Your task to perform on an android device: Do I have any events tomorrow? Image 0: 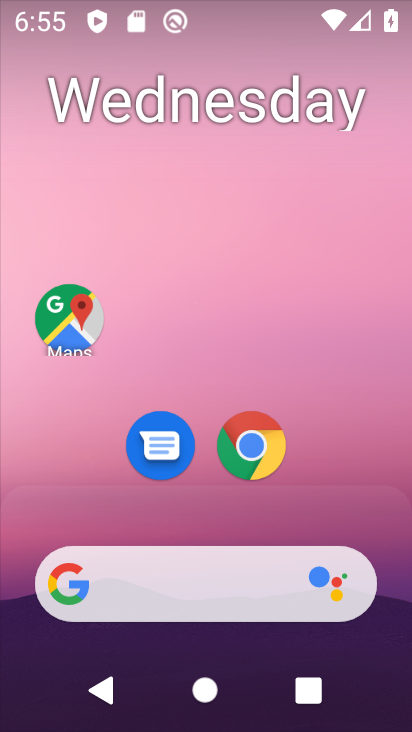
Step 0: drag from (329, 482) to (232, 23)
Your task to perform on an android device: Do I have any events tomorrow? Image 1: 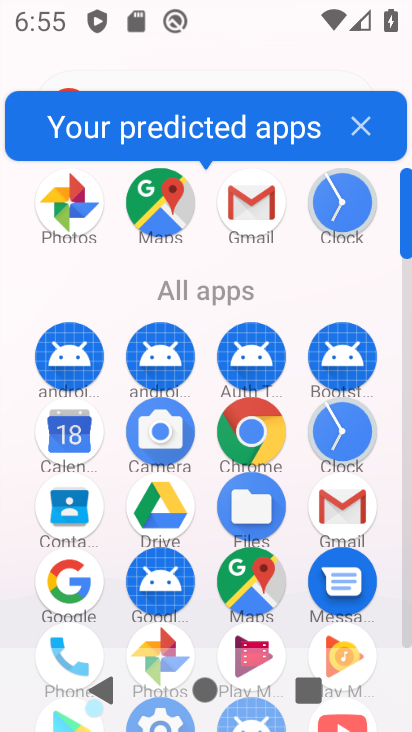
Step 1: drag from (205, 440) to (206, 230)
Your task to perform on an android device: Do I have any events tomorrow? Image 2: 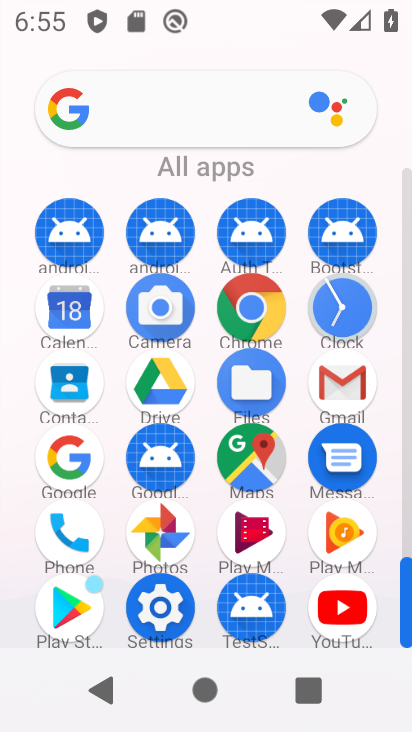
Step 2: click (71, 310)
Your task to perform on an android device: Do I have any events tomorrow? Image 3: 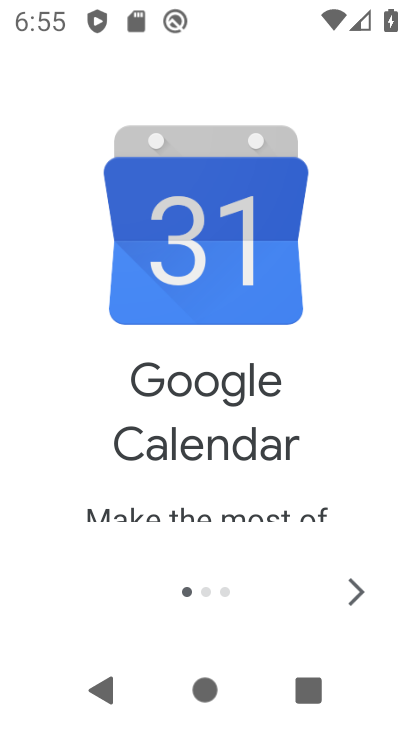
Step 3: click (355, 588)
Your task to perform on an android device: Do I have any events tomorrow? Image 4: 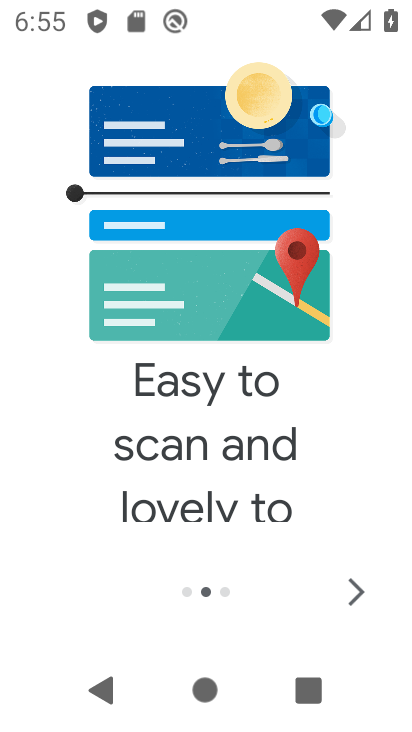
Step 4: click (355, 588)
Your task to perform on an android device: Do I have any events tomorrow? Image 5: 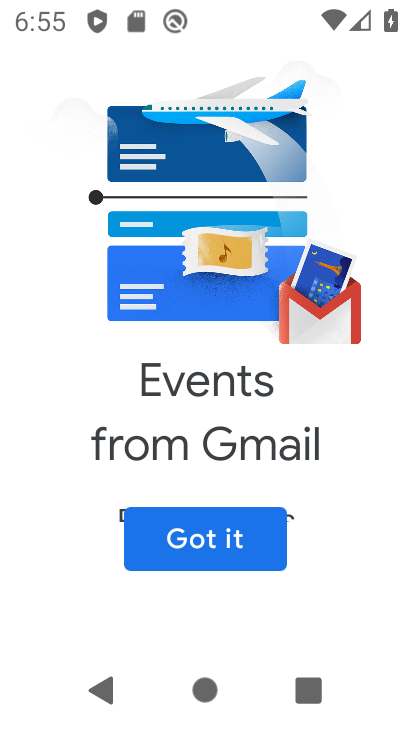
Step 5: click (214, 545)
Your task to perform on an android device: Do I have any events tomorrow? Image 6: 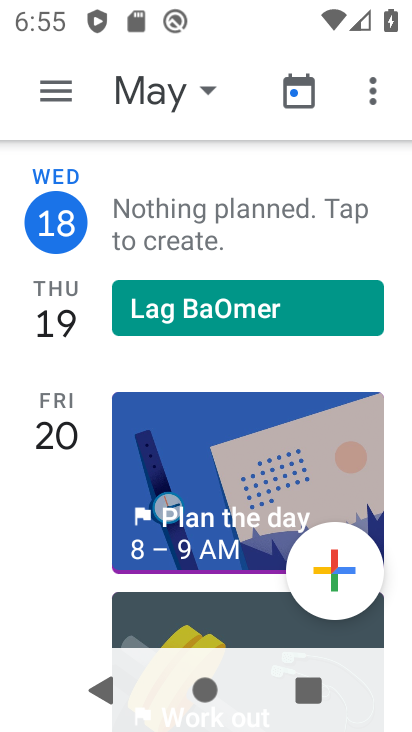
Step 6: click (208, 88)
Your task to perform on an android device: Do I have any events tomorrow? Image 7: 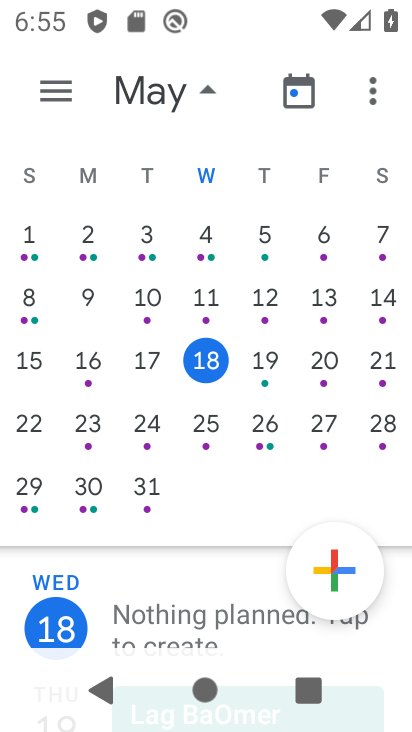
Step 7: click (278, 352)
Your task to perform on an android device: Do I have any events tomorrow? Image 8: 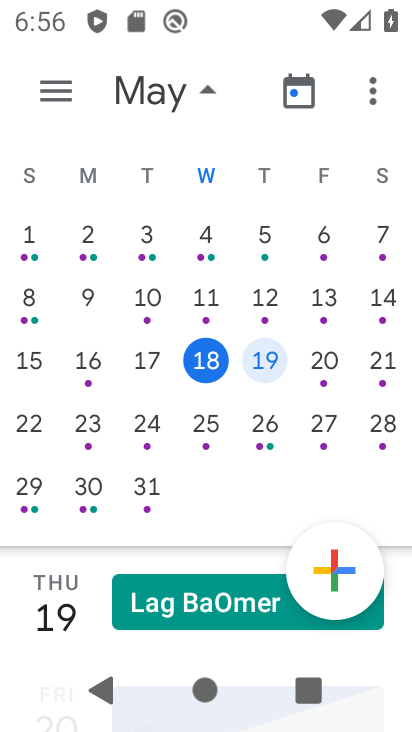
Step 8: click (55, 97)
Your task to perform on an android device: Do I have any events tomorrow? Image 9: 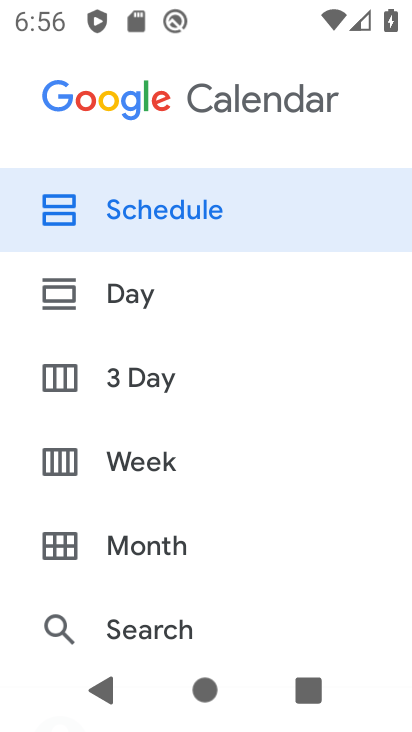
Step 9: click (132, 210)
Your task to perform on an android device: Do I have any events tomorrow? Image 10: 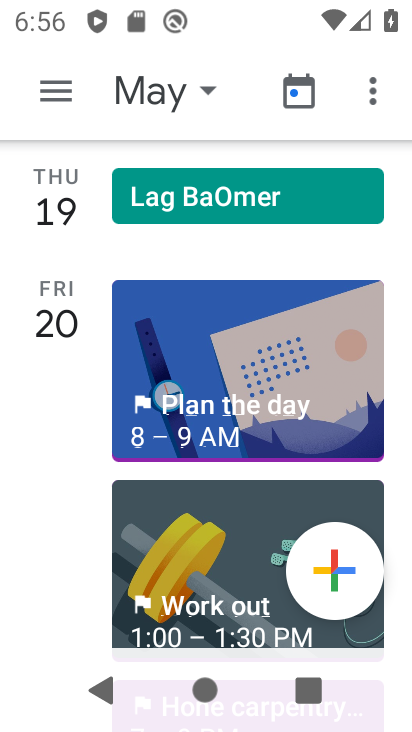
Step 10: click (311, 202)
Your task to perform on an android device: Do I have any events tomorrow? Image 11: 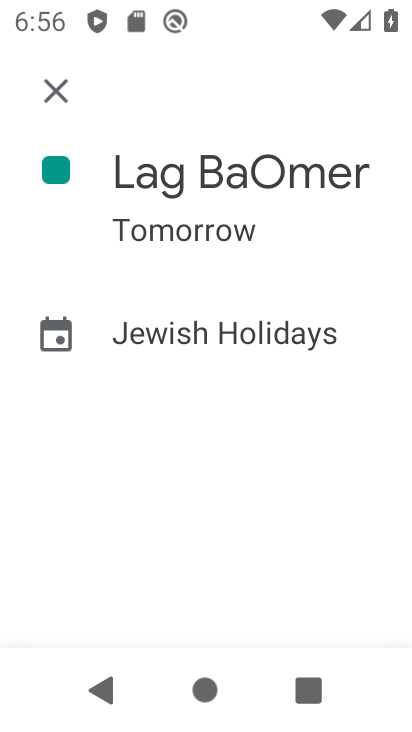
Step 11: task complete